Your task to perform on an android device: Open eBay Image 0: 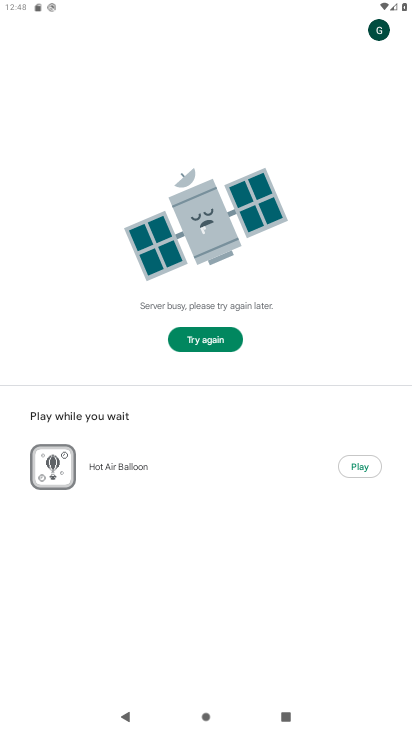
Step 0: press home button
Your task to perform on an android device: Open eBay Image 1: 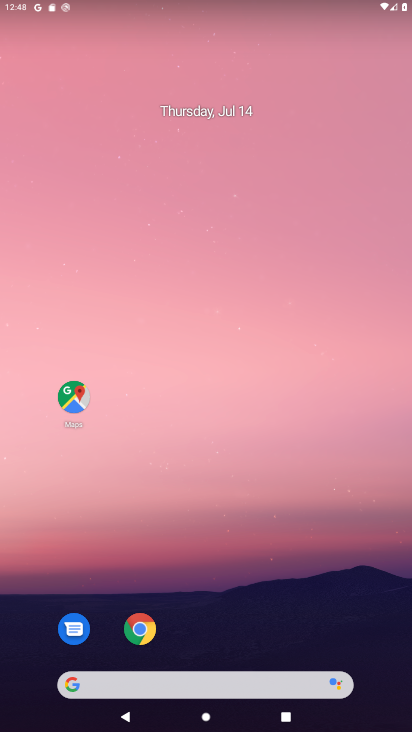
Step 1: drag from (291, 562) to (332, 12)
Your task to perform on an android device: Open eBay Image 2: 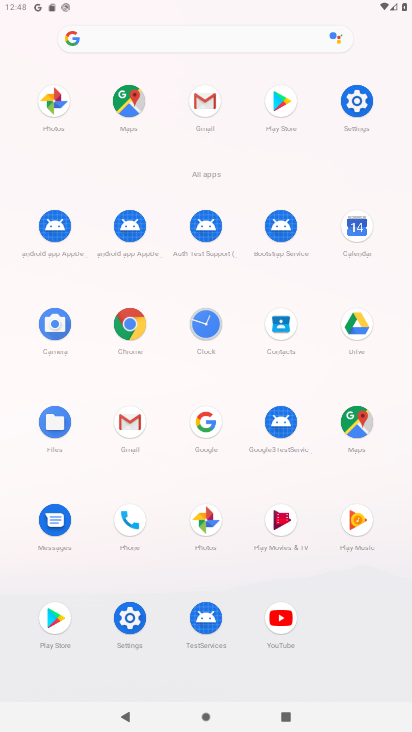
Step 2: click (134, 320)
Your task to perform on an android device: Open eBay Image 3: 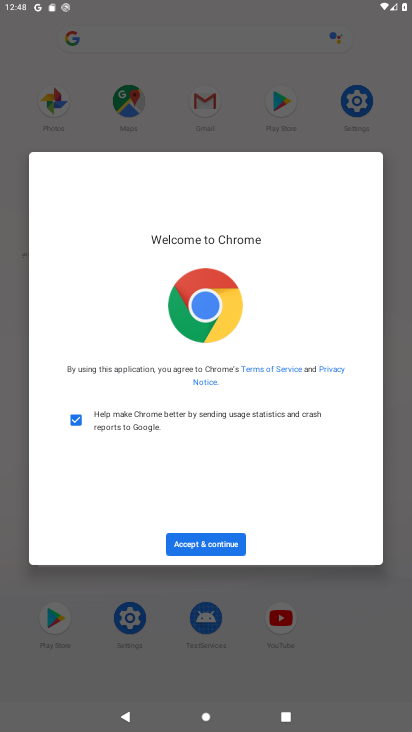
Step 3: click (222, 538)
Your task to perform on an android device: Open eBay Image 4: 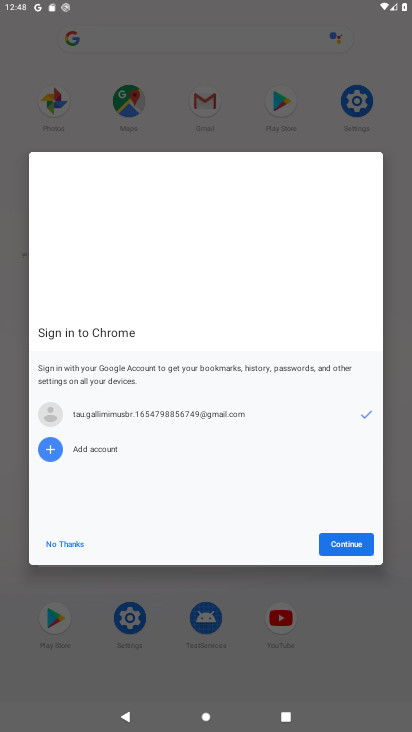
Step 4: click (353, 545)
Your task to perform on an android device: Open eBay Image 5: 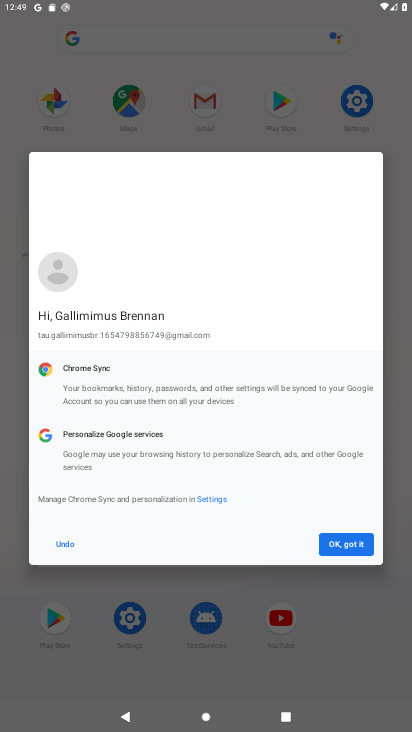
Step 5: click (355, 533)
Your task to perform on an android device: Open eBay Image 6: 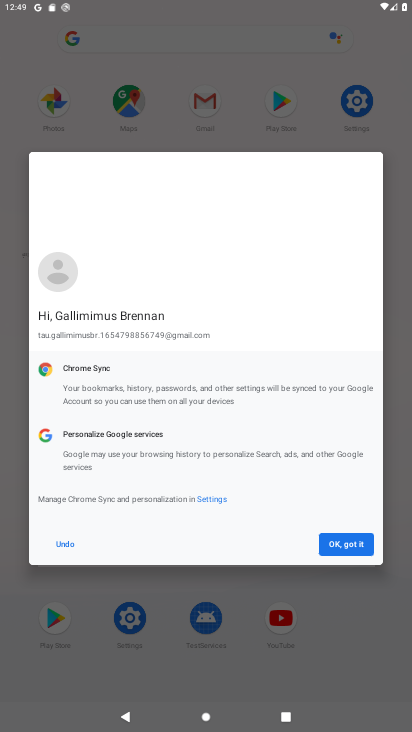
Step 6: click (351, 541)
Your task to perform on an android device: Open eBay Image 7: 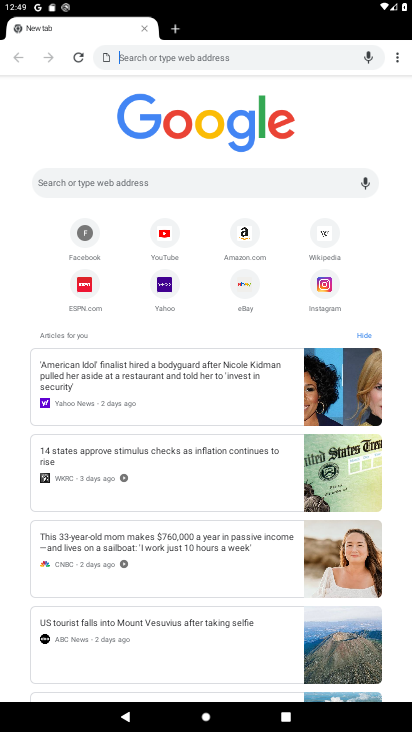
Step 7: click (241, 282)
Your task to perform on an android device: Open eBay Image 8: 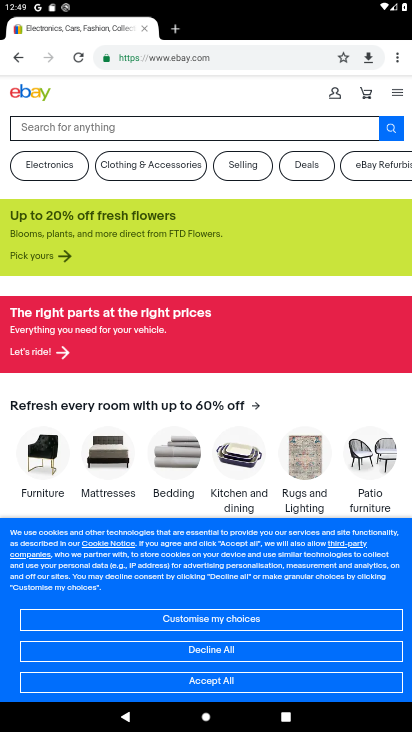
Step 8: task complete